Your task to perform on an android device: choose inbox layout in the gmail app Image 0: 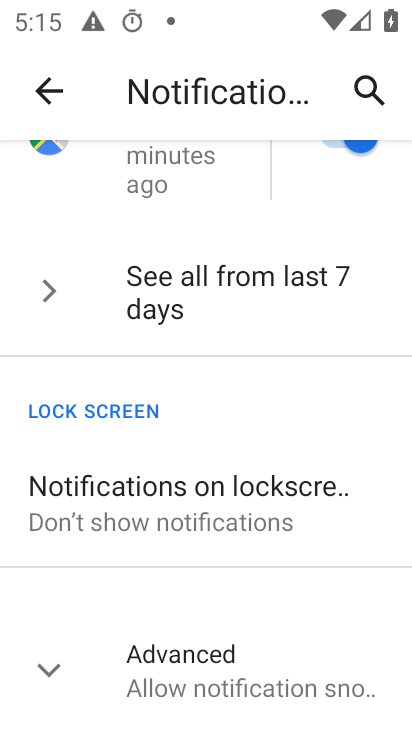
Step 0: press home button
Your task to perform on an android device: choose inbox layout in the gmail app Image 1: 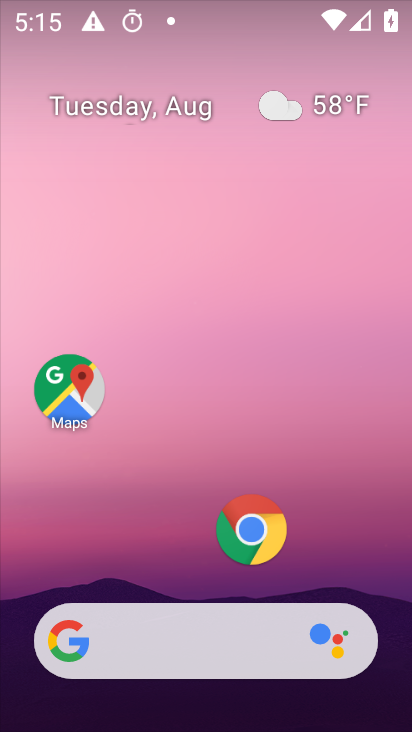
Step 1: drag from (183, 528) to (192, 257)
Your task to perform on an android device: choose inbox layout in the gmail app Image 2: 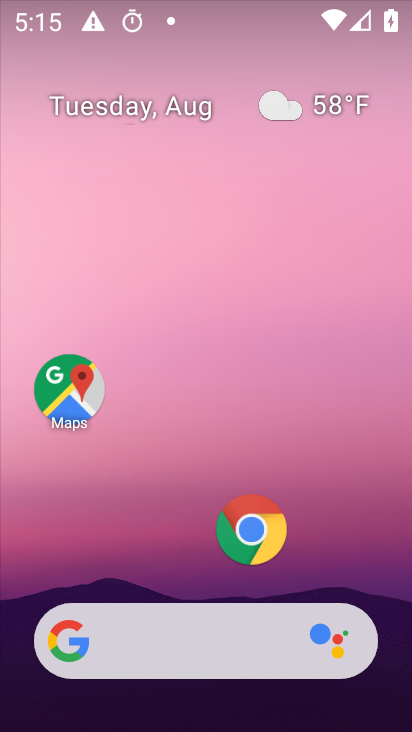
Step 2: drag from (194, 495) to (218, 269)
Your task to perform on an android device: choose inbox layout in the gmail app Image 3: 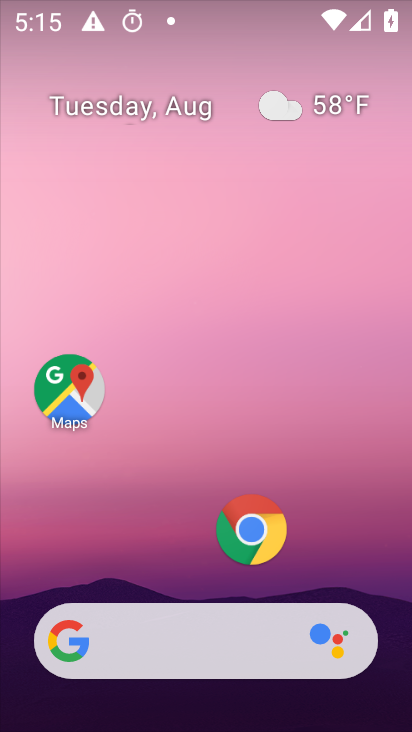
Step 3: drag from (206, 555) to (194, 167)
Your task to perform on an android device: choose inbox layout in the gmail app Image 4: 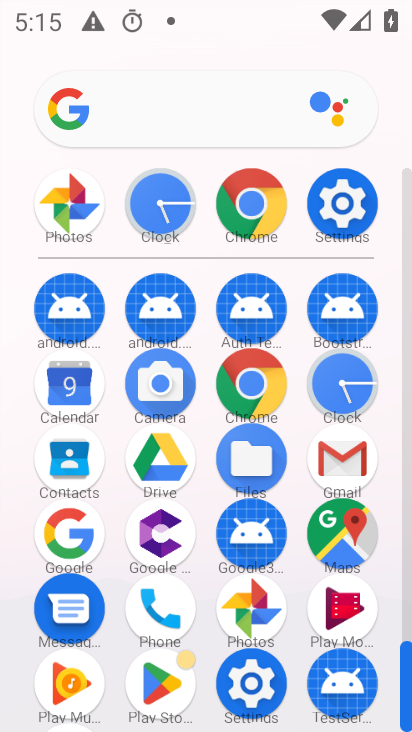
Step 4: click (327, 458)
Your task to perform on an android device: choose inbox layout in the gmail app Image 5: 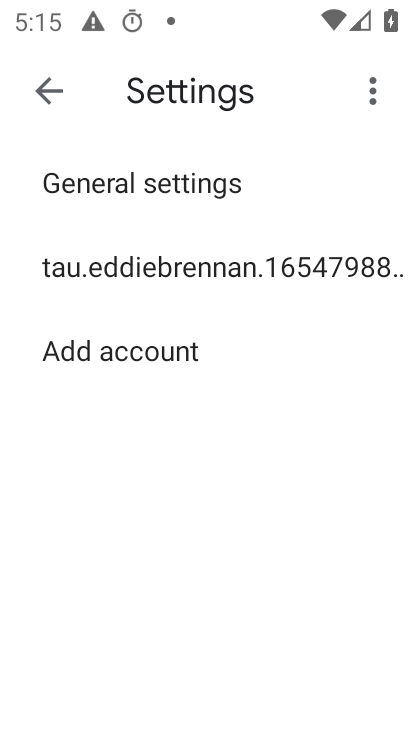
Step 5: click (222, 265)
Your task to perform on an android device: choose inbox layout in the gmail app Image 6: 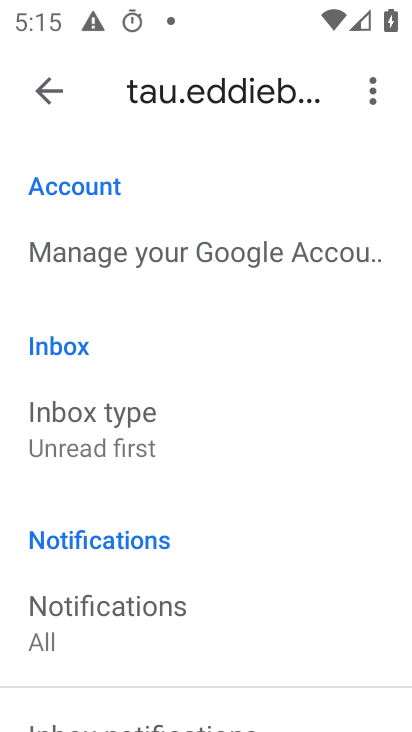
Step 6: click (172, 414)
Your task to perform on an android device: choose inbox layout in the gmail app Image 7: 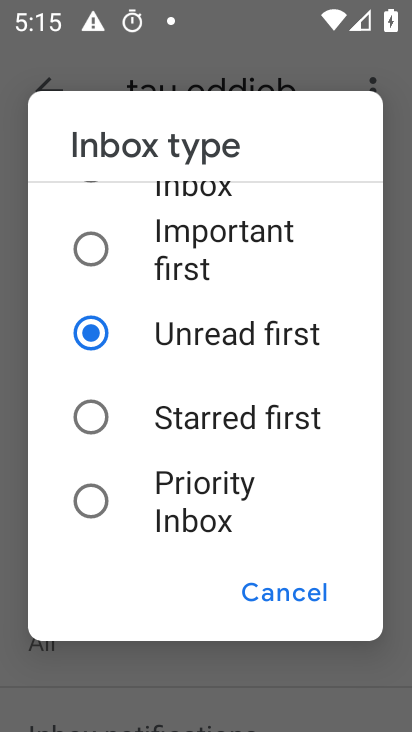
Step 7: click (197, 522)
Your task to perform on an android device: choose inbox layout in the gmail app Image 8: 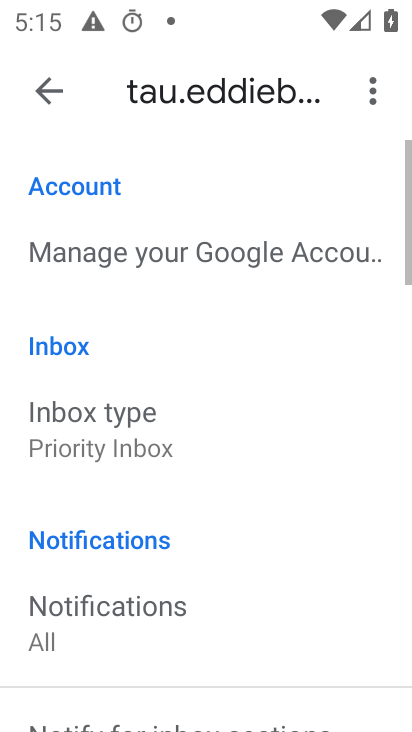
Step 8: task complete